Your task to perform on an android device: toggle javascript in the chrome app Image 0: 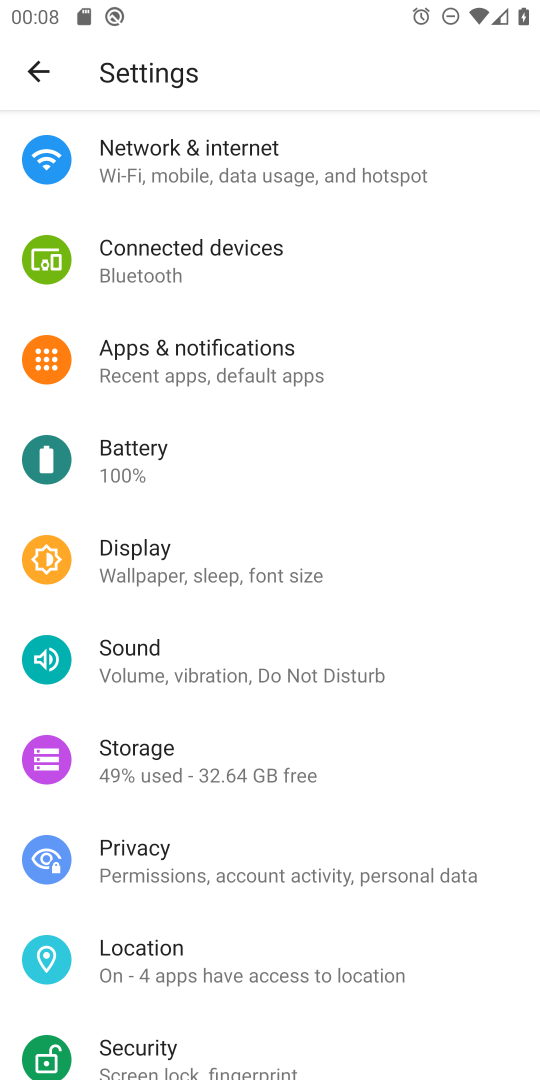
Step 0: press home button
Your task to perform on an android device: toggle javascript in the chrome app Image 1: 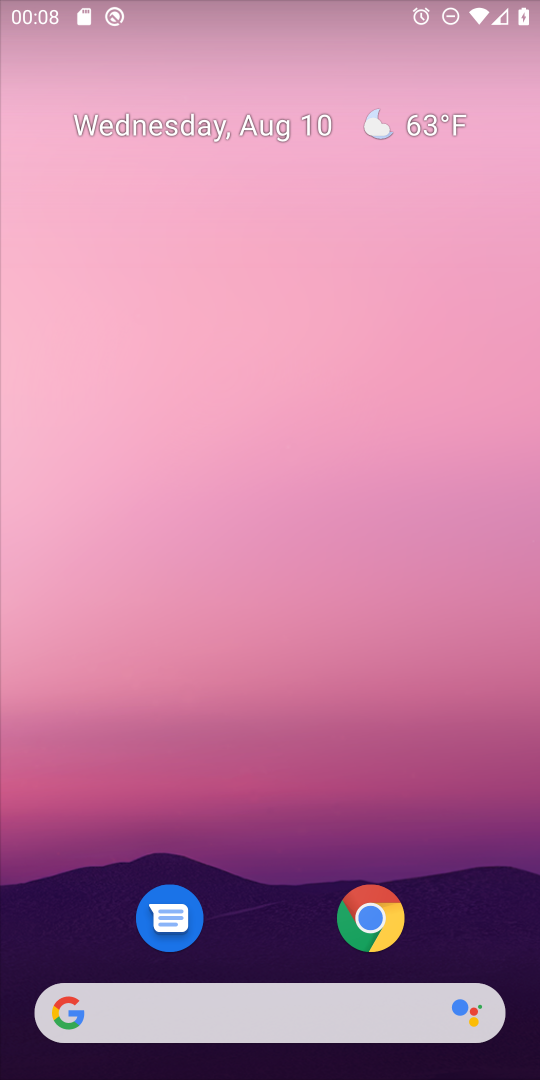
Step 1: drag from (277, 884) to (265, 154)
Your task to perform on an android device: toggle javascript in the chrome app Image 2: 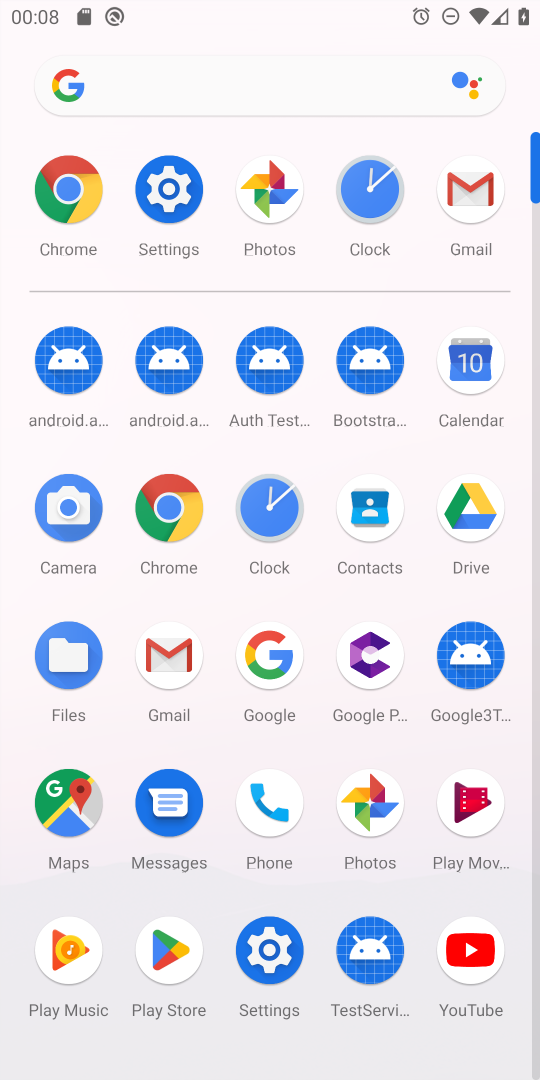
Step 2: click (162, 509)
Your task to perform on an android device: toggle javascript in the chrome app Image 3: 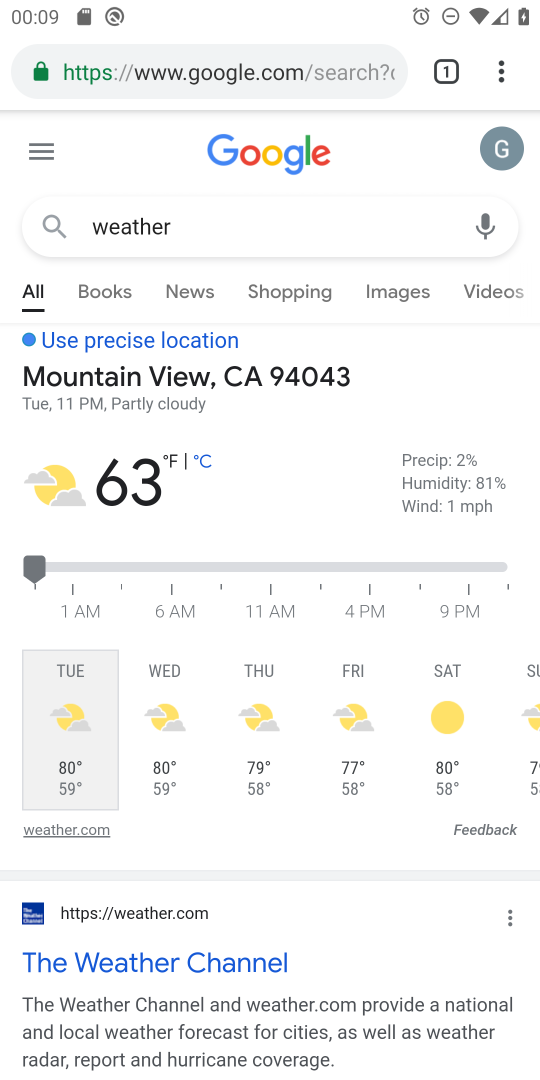
Step 3: click (512, 71)
Your task to perform on an android device: toggle javascript in the chrome app Image 4: 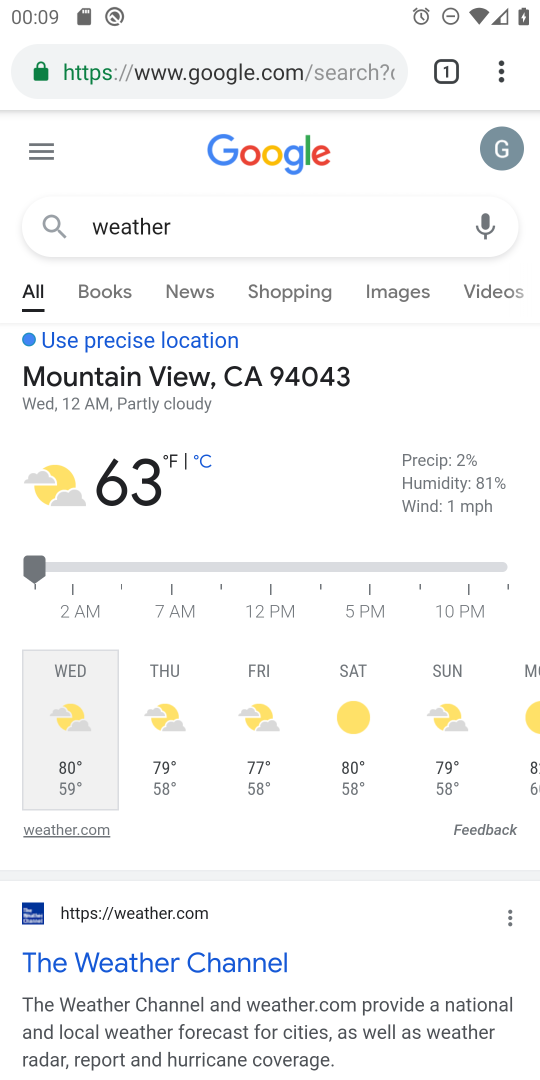
Step 4: drag from (509, 64) to (252, 864)
Your task to perform on an android device: toggle javascript in the chrome app Image 5: 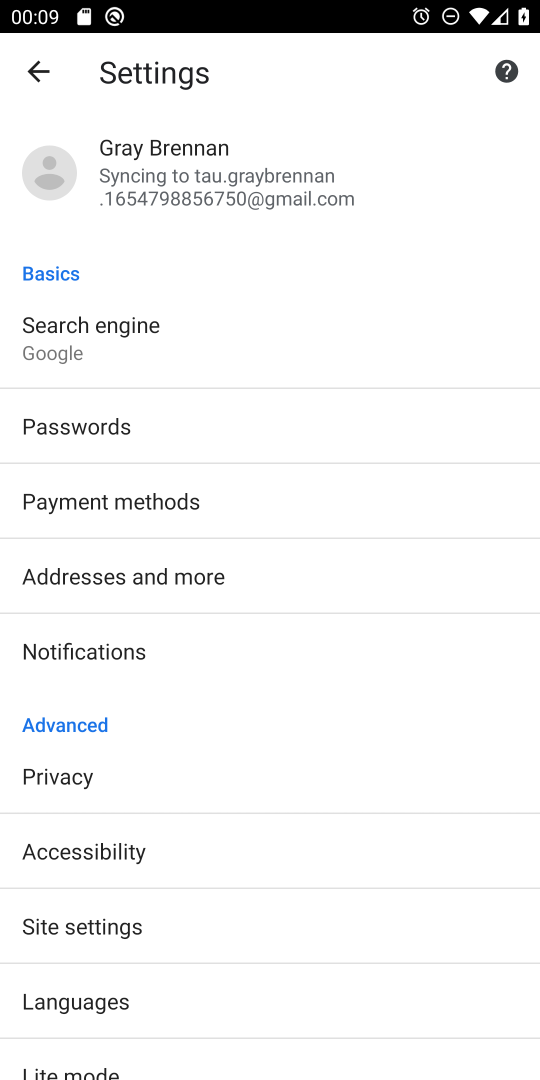
Step 5: click (72, 931)
Your task to perform on an android device: toggle javascript in the chrome app Image 6: 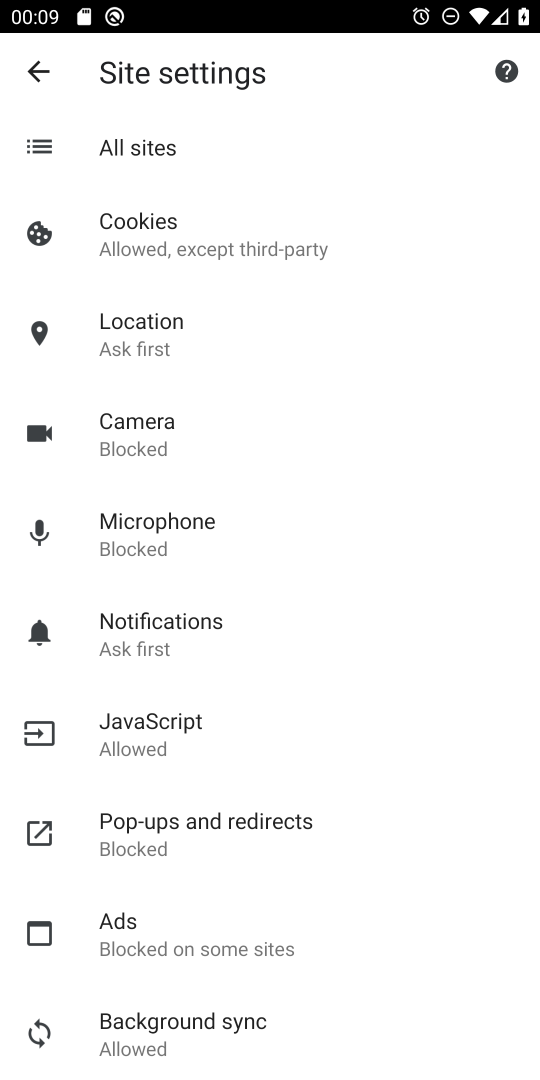
Step 6: click (188, 720)
Your task to perform on an android device: toggle javascript in the chrome app Image 7: 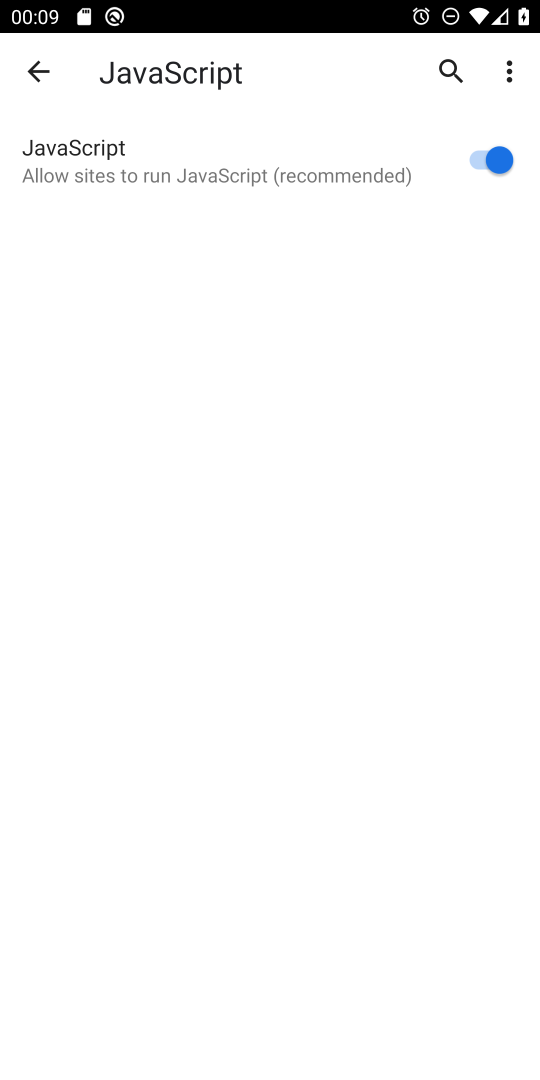
Step 7: click (474, 164)
Your task to perform on an android device: toggle javascript in the chrome app Image 8: 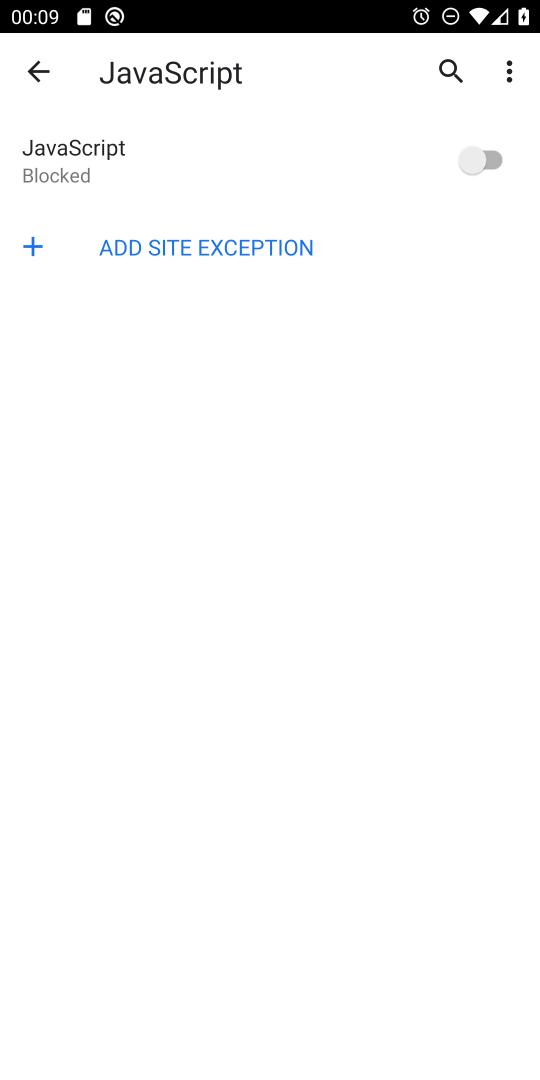
Step 8: task complete